Your task to perform on an android device: Open Google Chrome Image 0: 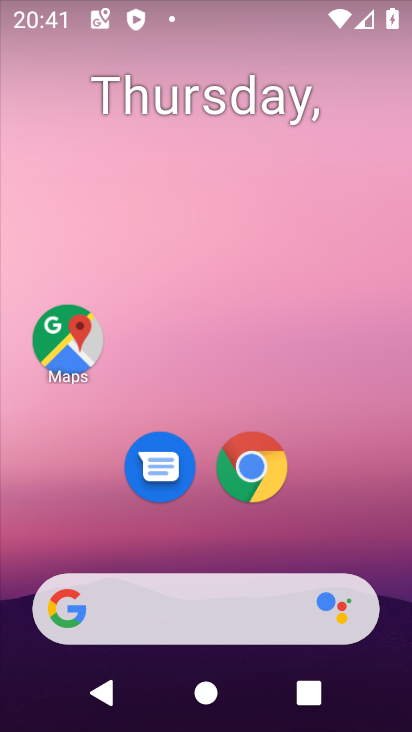
Step 0: drag from (270, 485) to (305, 111)
Your task to perform on an android device: Open Google Chrome Image 1: 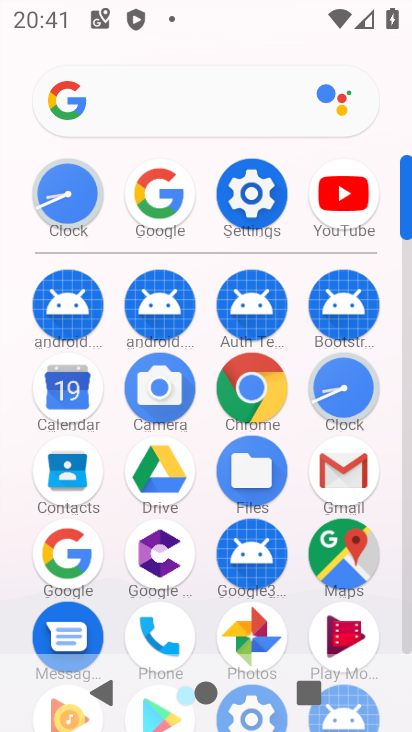
Step 1: drag from (235, 583) to (326, 156)
Your task to perform on an android device: Open Google Chrome Image 2: 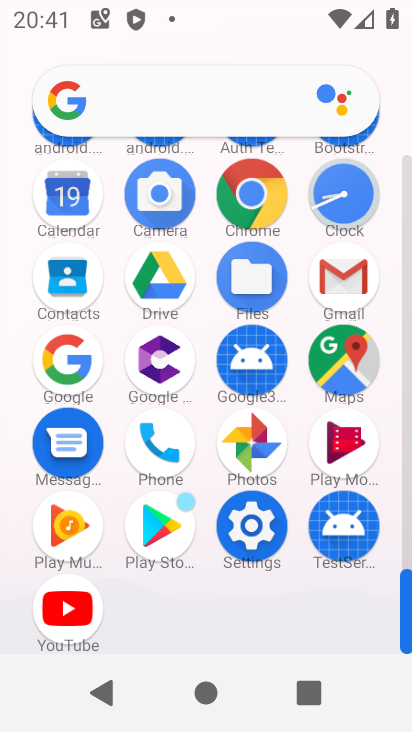
Step 2: click (80, 347)
Your task to perform on an android device: Open Google Chrome Image 3: 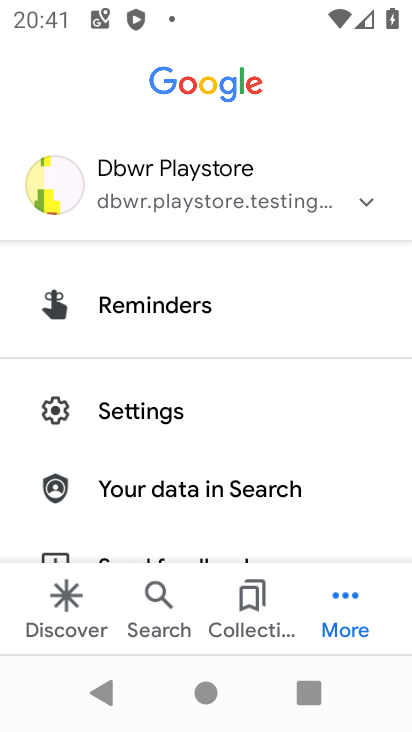
Step 3: task complete